Your task to perform on an android device: delete location history Image 0: 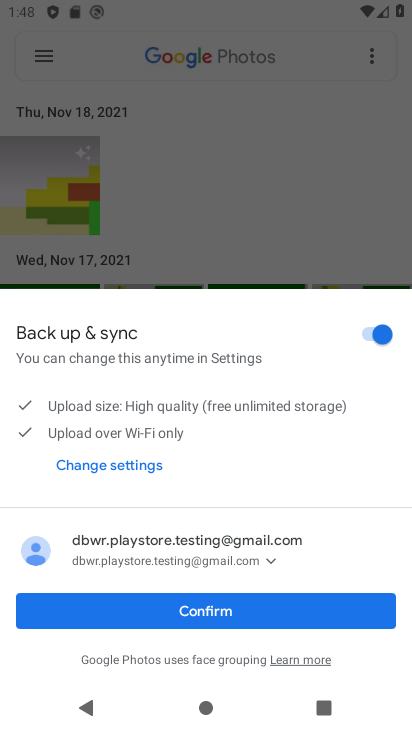
Step 0: press home button
Your task to perform on an android device: delete location history Image 1: 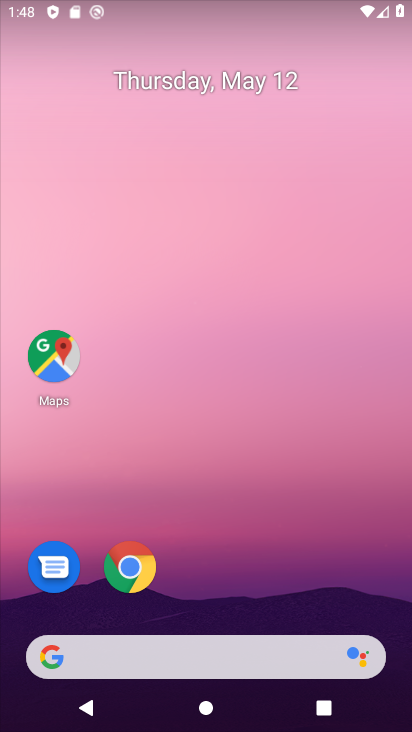
Step 1: drag from (158, 582) to (176, 280)
Your task to perform on an android device: delete location history Image 2: 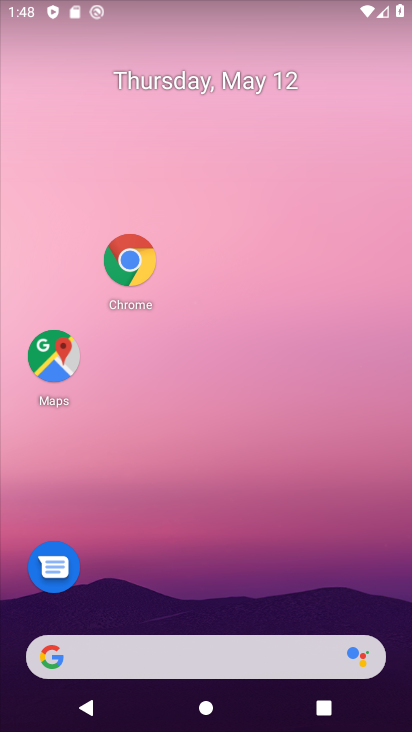
Step 2: drag from (223, 632) to (223, 177)
Your task to perform on an android device: delete location history Image 3: 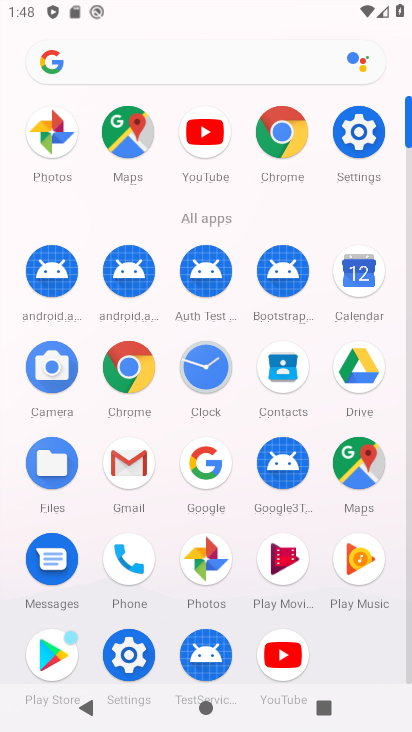
Step 3: click (117, 656)
Your task to perform on an android device: delete location history Image 4: 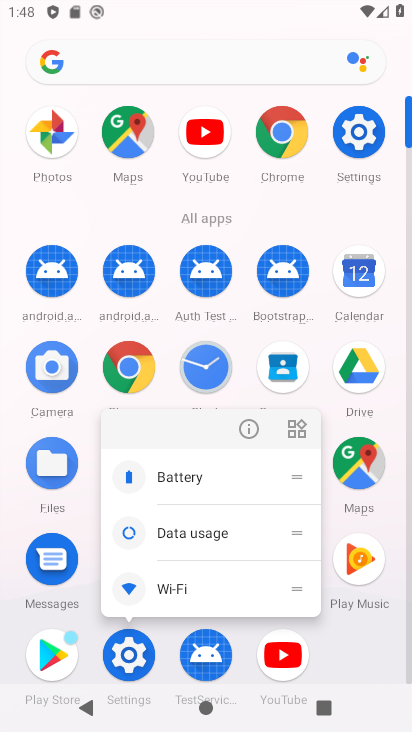
Step 4: click (118, 654)
Your task to perform on an android device: delete location history Image 5: 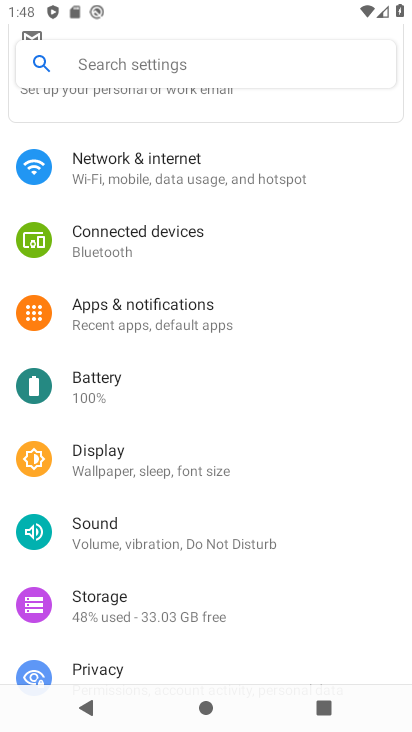
Step 5: drag from (128, 655) to (134, 295)
Your task to perform on an android device: delete location history Image 6: 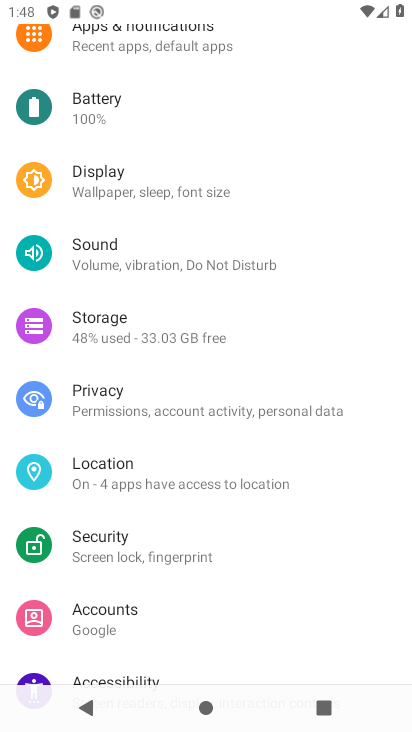
Step 6: click (99, 483)
Your task to perform on an android device: delete location history Image 7: 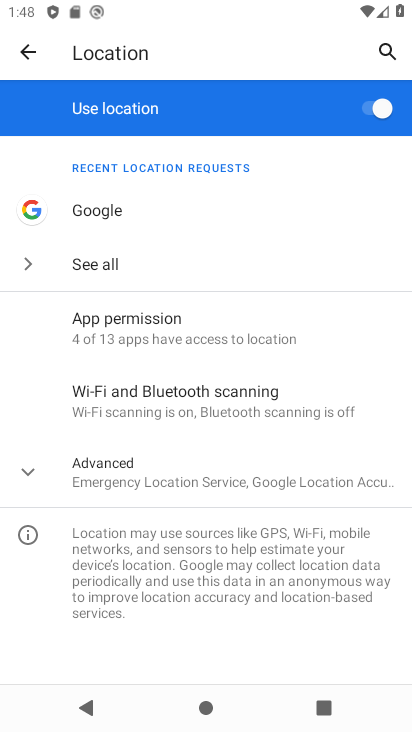
Step 7: click (99, 483)
Your task to perform on an android device: delete location history Image 8: 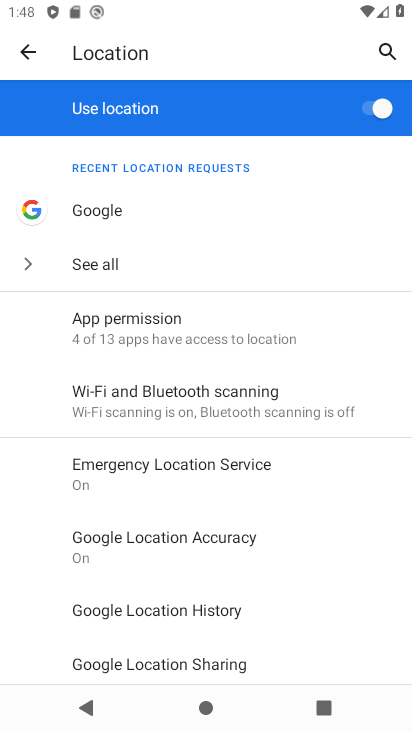
Step 8: click (162, 618)
Your task to perform on an android device: delete location history Image 9: 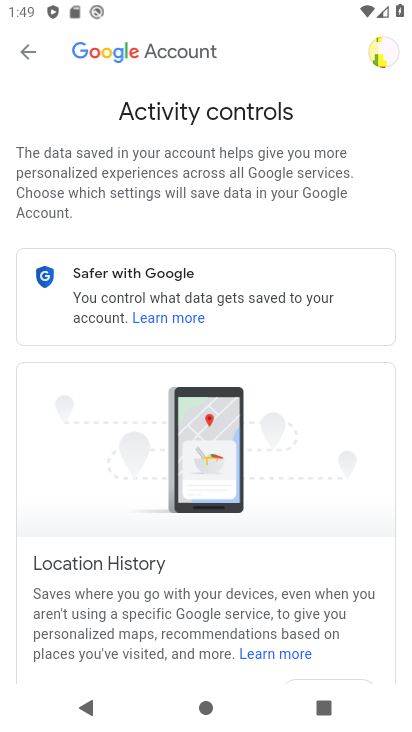
Step 9: drag from (280, 555) to (291, 203)
Your task to perform on an android device: delete location history Image 10: 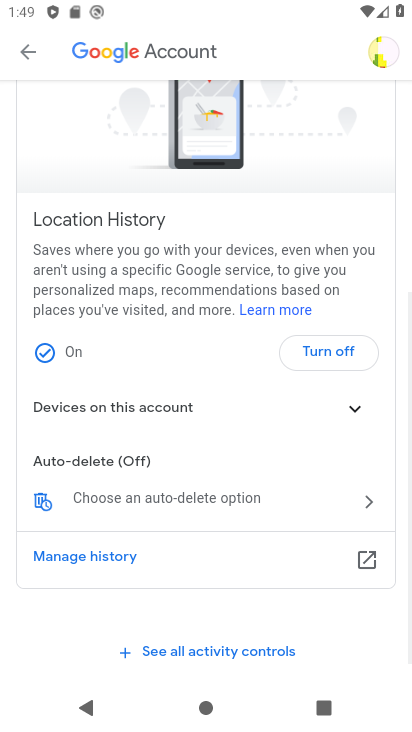
Step 10: click (241, 245)
Your task to perform on an android device: delete location history Image 11: 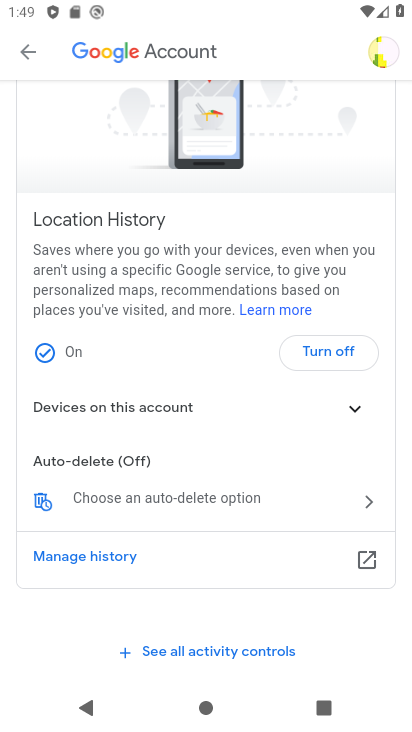
Step 11: click (161, 495)
Your task to perform on an android device: delete location history Image 12: 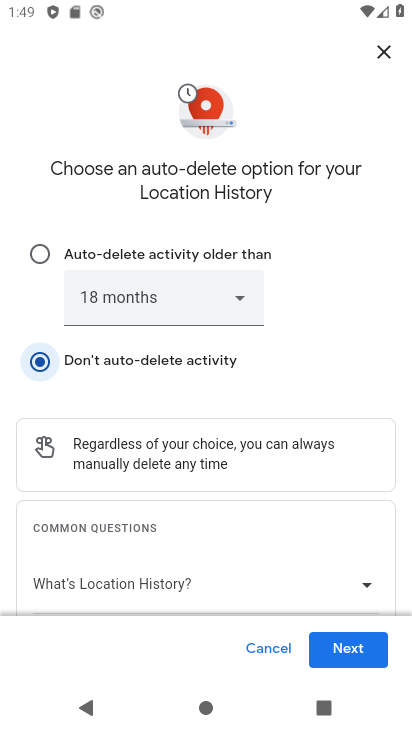
Step 12: click (342, 644)
Your task to perform on an android device: delete location history Image 13: 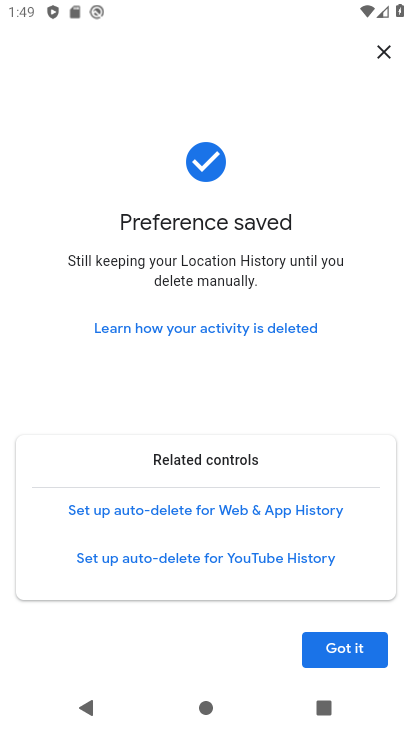
Step 13: click (338, 653)
Your task to perform on an android device: delete location history Image 14: 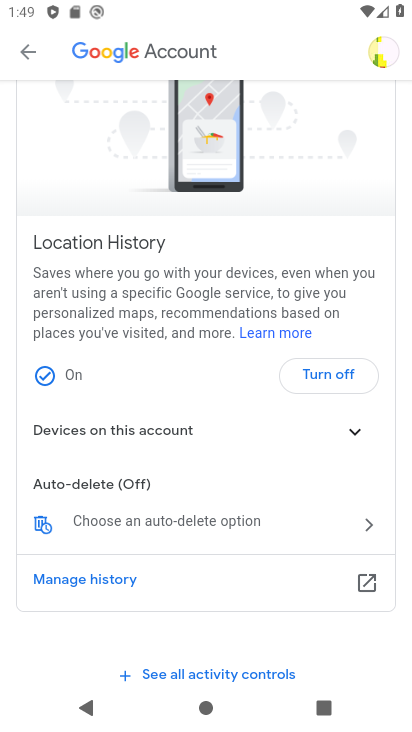
Step 14: task complete